Your task to perform on an android device: Open accessibility settings Image 0: 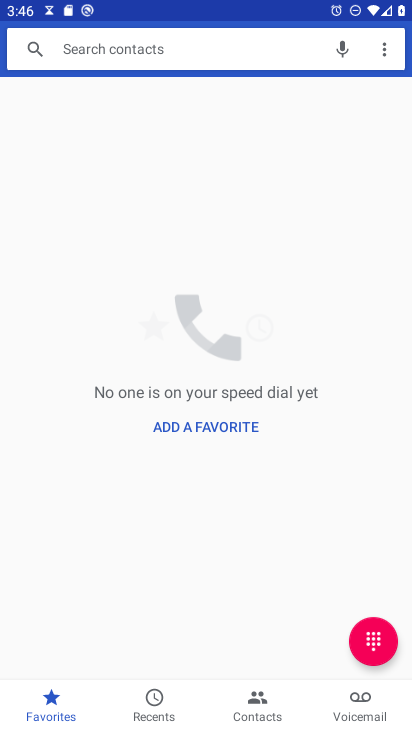
Step 0: press home button
Your task to perform on an android device: Open accessibility settings Image 1: 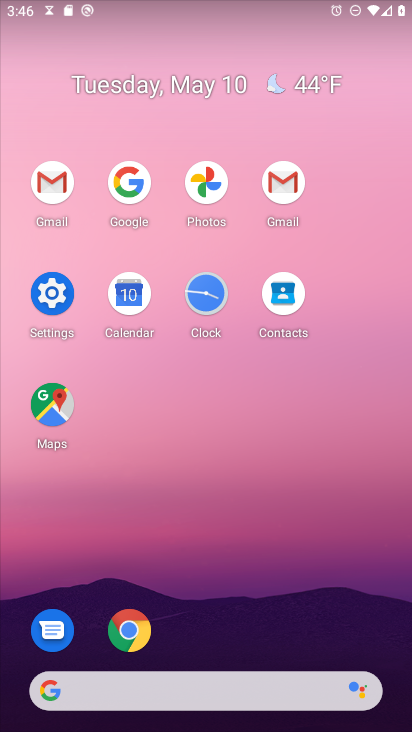
Step 1: click (63, 298)
Your task to perform on an android device: Open accessibility settings Image 2: 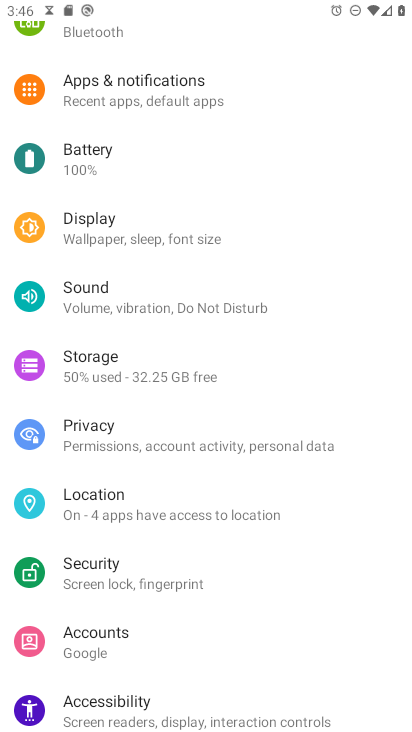
Step 2: click (169, 700)
Your task to perform on an android device: Open accessibility settings Image 3: 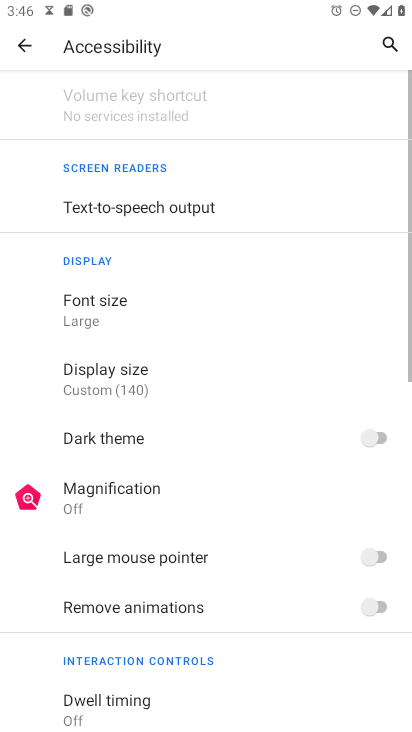
Step 3: task complete